Your task to perform on an android device: Go to Google maps Image 0: 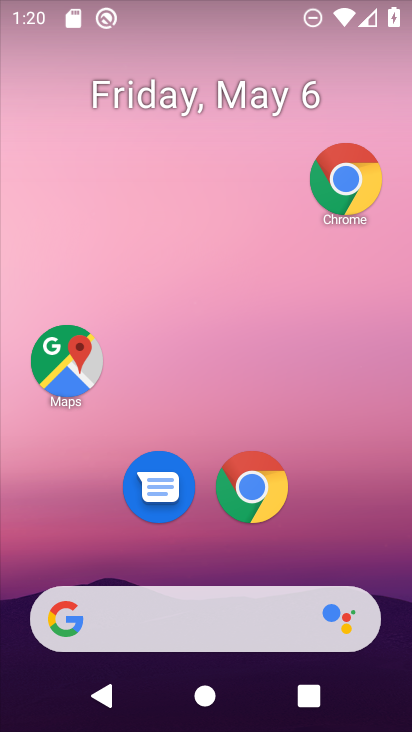
Step 0: click (55, 367)
Your task to perform on an android device: Go to Google maps Image 1: 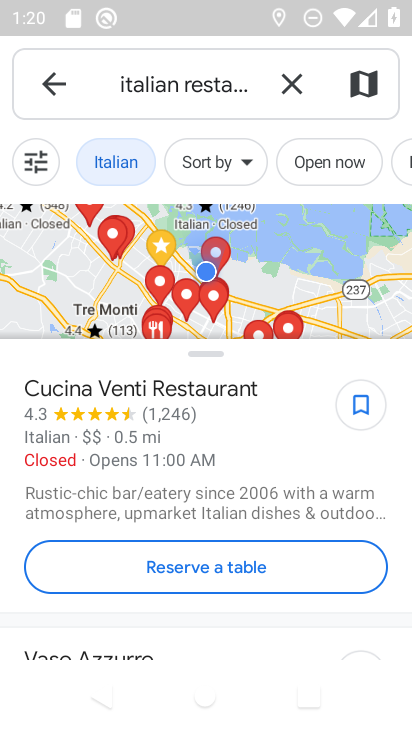
Step 1: task complete